Your task to perform on an android device: Is it going to rain today? Image 0: 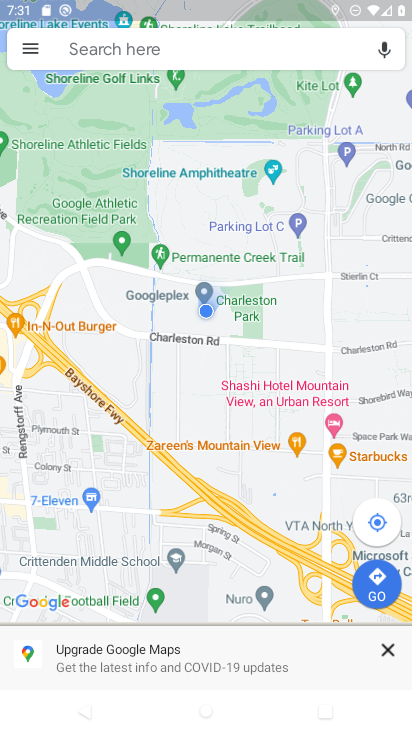
Step 0: press home button
Your task to perform on an android device: Is it going to rain today? Image 1: 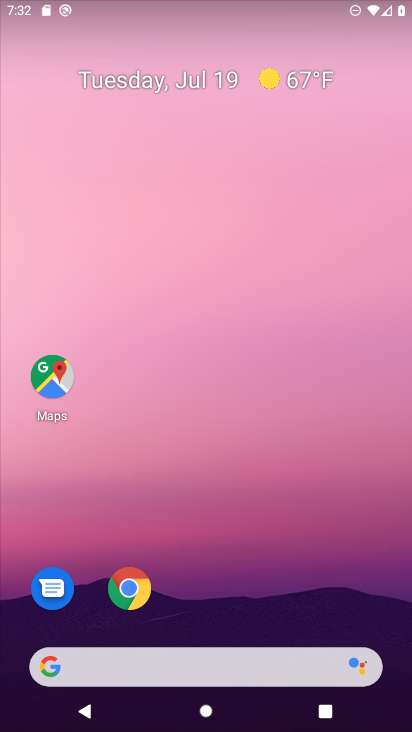
Step 1: click (207, 673)
Your task to perform on an android device: Is it going to rain today? Image 2: 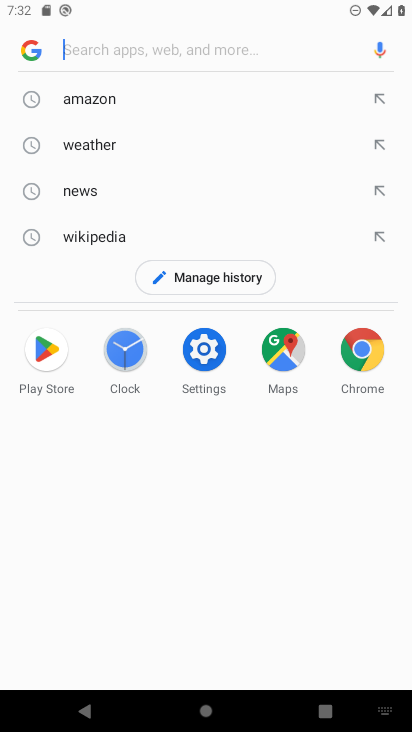
Step 2: click (112, 150)
Your task to perform on an android device: Is it going to rain today? Image 3: 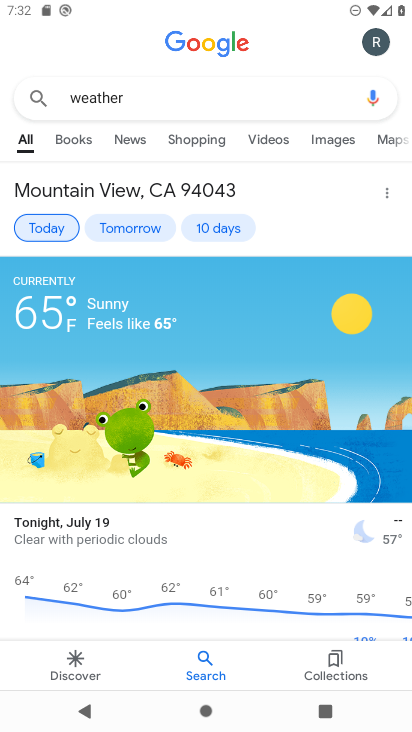
Step 3: task complete